Your task to perform on an android device: Open Google Image 0: 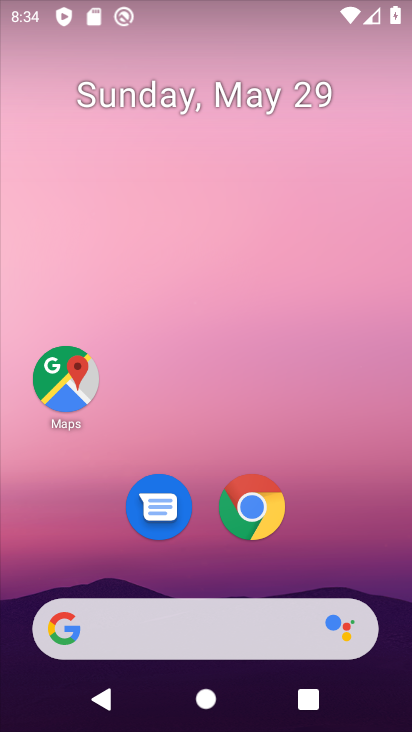
Step 0: drag from (97, 599) to (220, 140)
Your task to perform on an android device: Open Google Image 1: 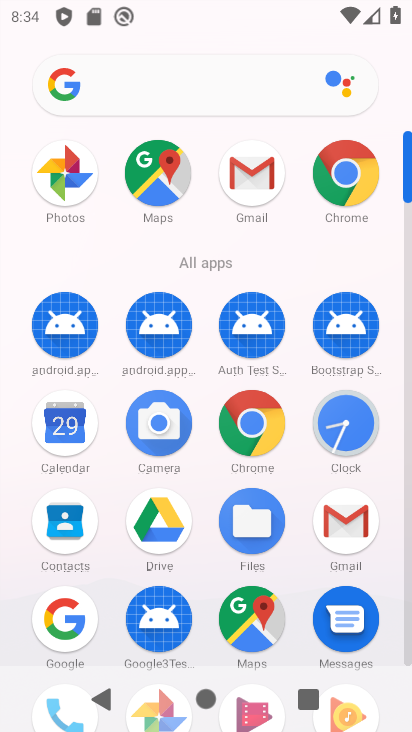
Step 1: click (58, 630)
Your task to perform on an android device: Open Google Image 2: 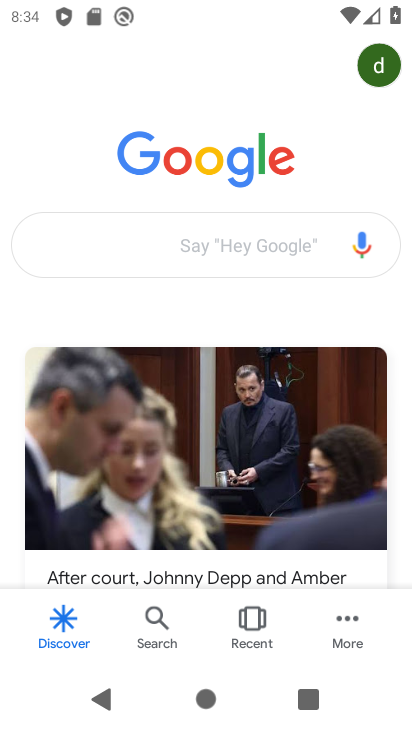
Step 2: task complete